Your task to perform on an android device: Open CNN.com Image 0: 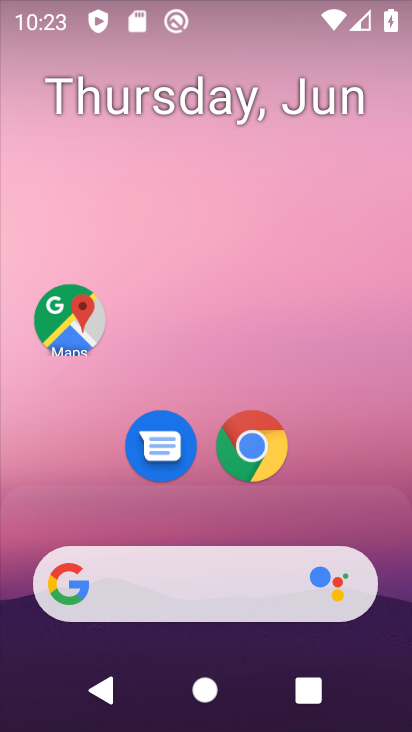
Step 0: click (254, 439)
Your task to perform on an android device: Open CNN.com Image 1: 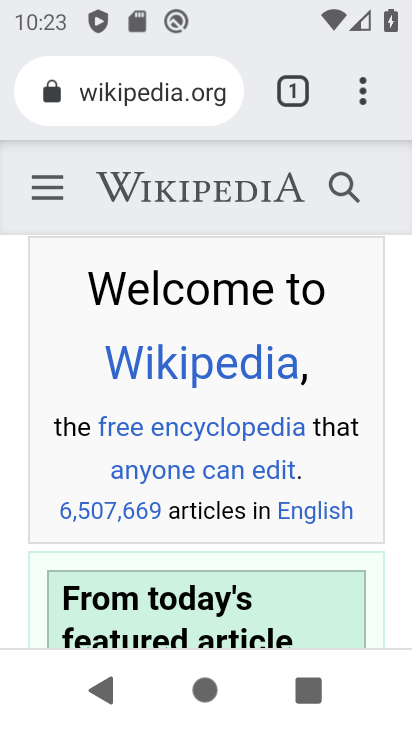
Step 1: click (164, 83)
Your task to perform on an android device: Open CNN.com Image 2: 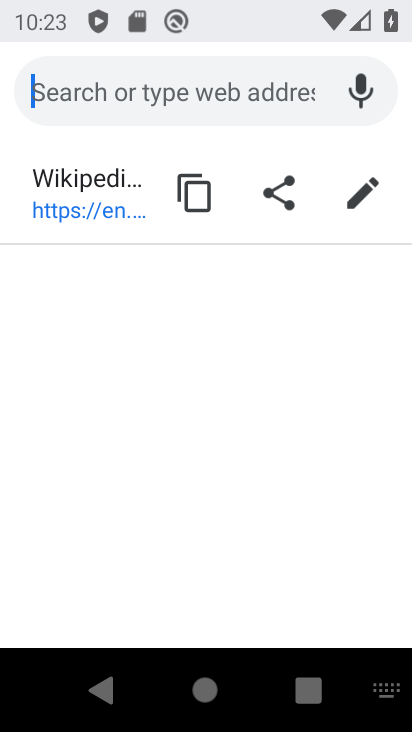
Step 2: type "cnn.com"
Your task to perform on an android device: Open CNN.com Image 3: 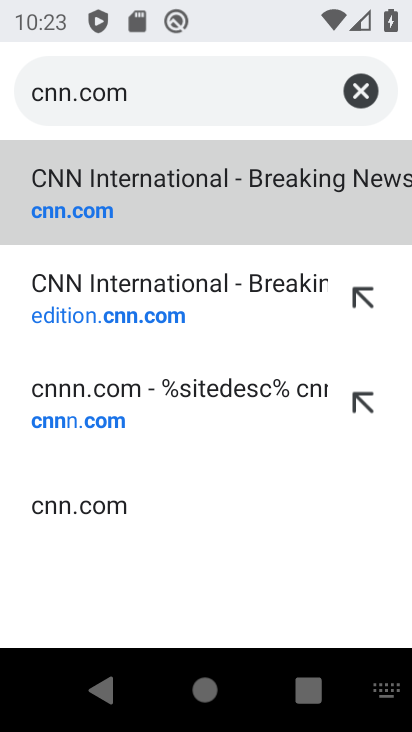
Step 3: click (98, 214)
Your task to perform on an android device: Open CNN.com Image 4: 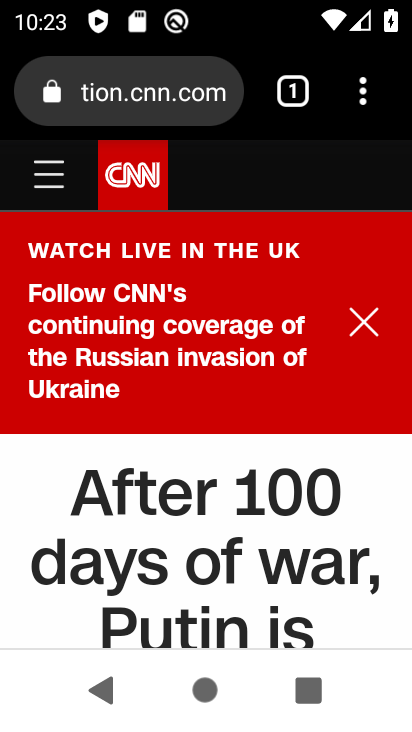
Step 4: task complete